Your task to perform on an android device: Open internet settings Image 0: 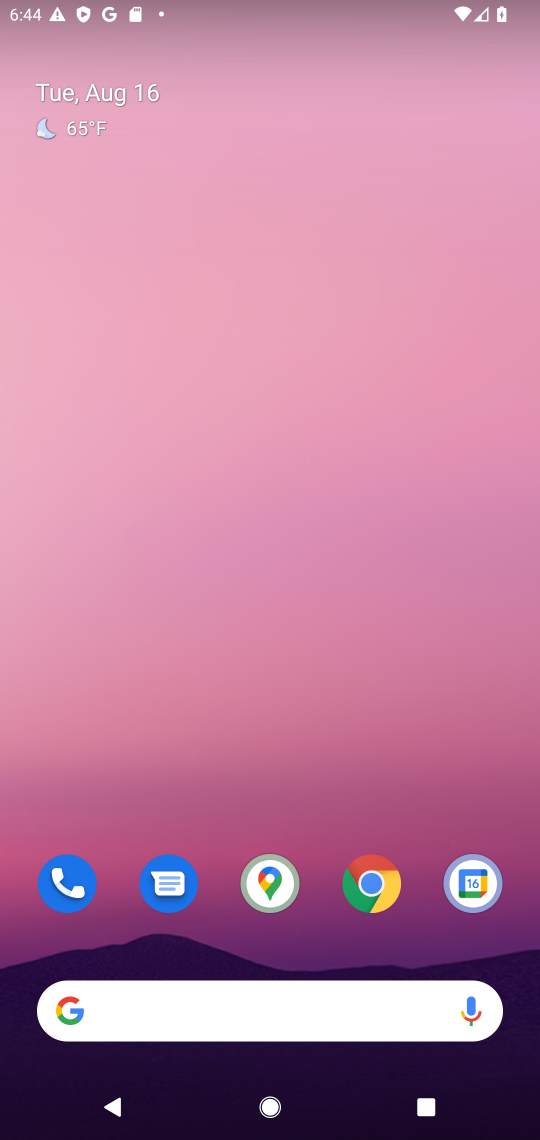
Step 0: drag from (207, 995) to (101, 178)
Your task to perform on an android device: Open internet settings Image 1: 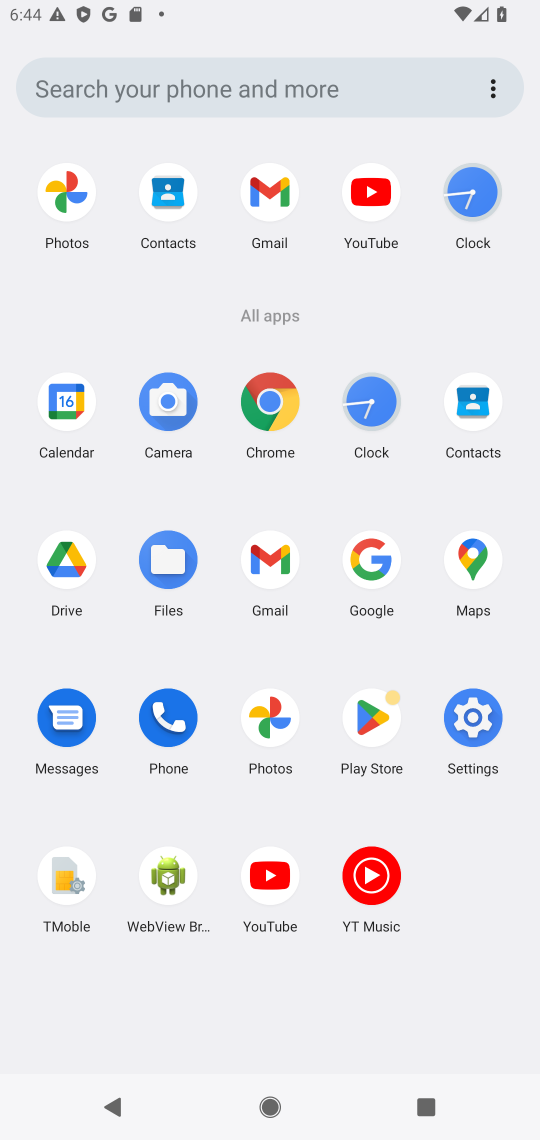
Step 1: click (470, 718)
Your task to perform on an android device: Open internet settings Image 2: 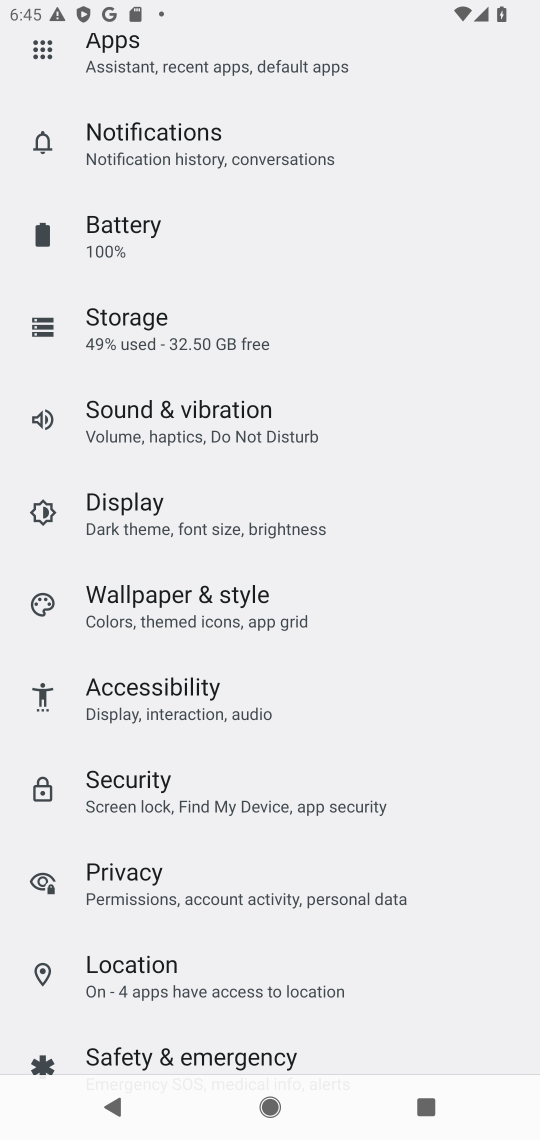
Step 2: drag from (240, 310) to (236, 620)
Your task to perform on an android device: Open internet settings Image 3: 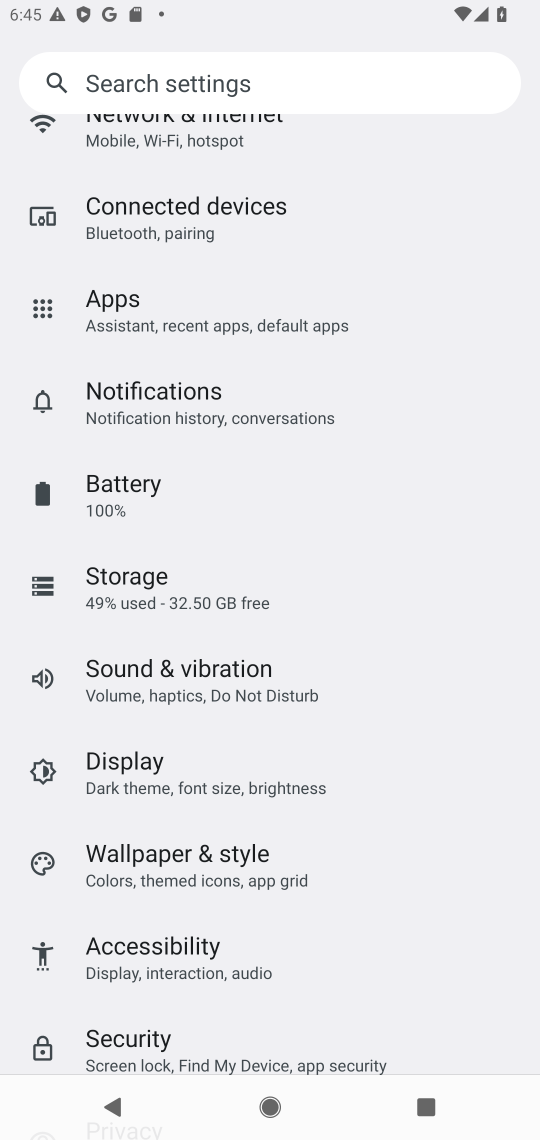
Step 3: drag from (252, 283) to (285, 751)
Your task to perform on an android device: Open internet settings Image 4: 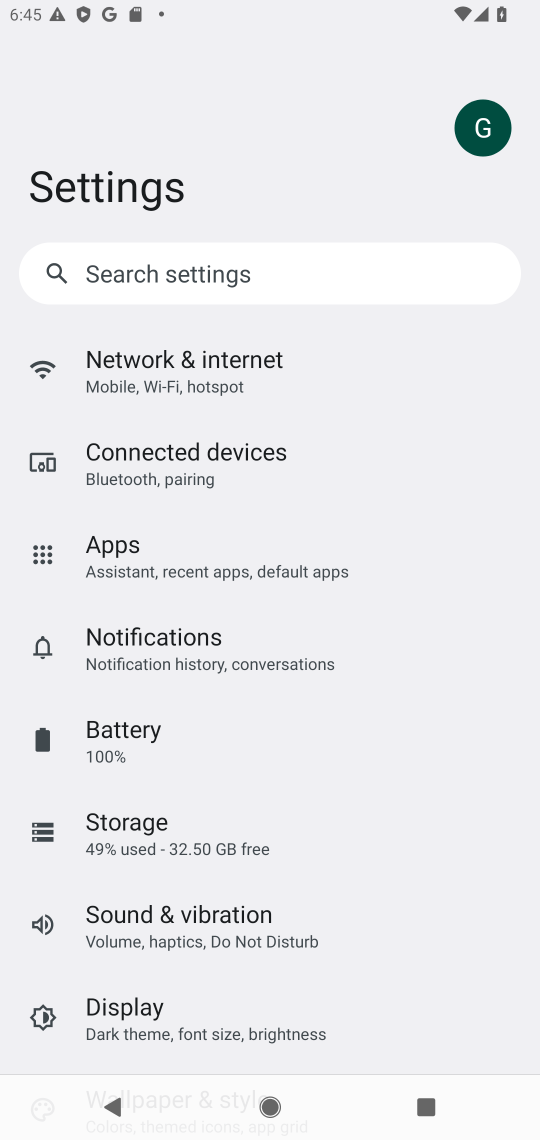
Step 4: click (197, 379)
Your task to perform on an android device: Open internet settings Image 5: 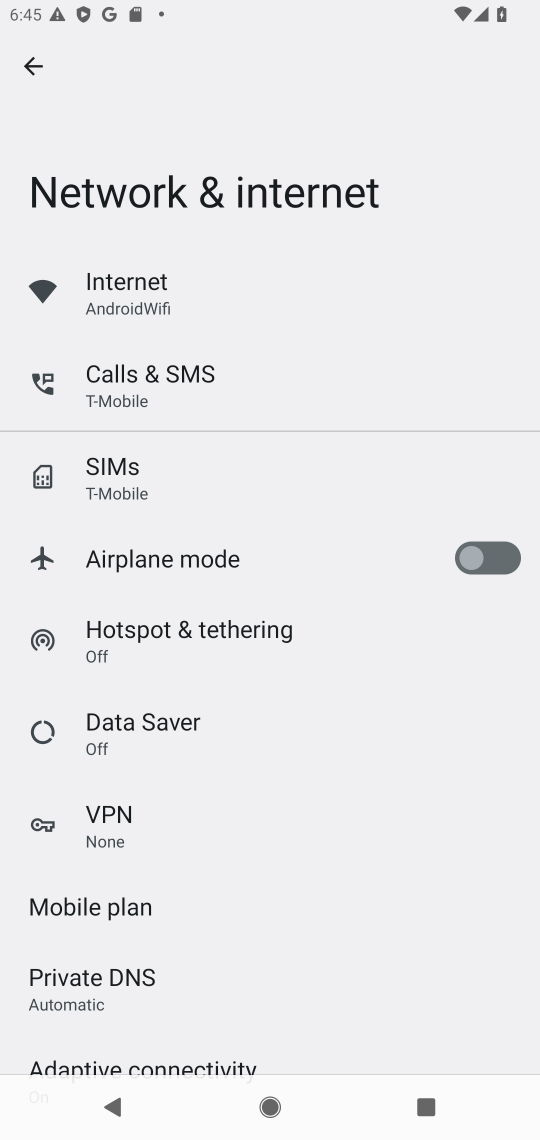
Step 5: click (138, 296)
Your task to perform on an android device: Open internet settings Image 6: 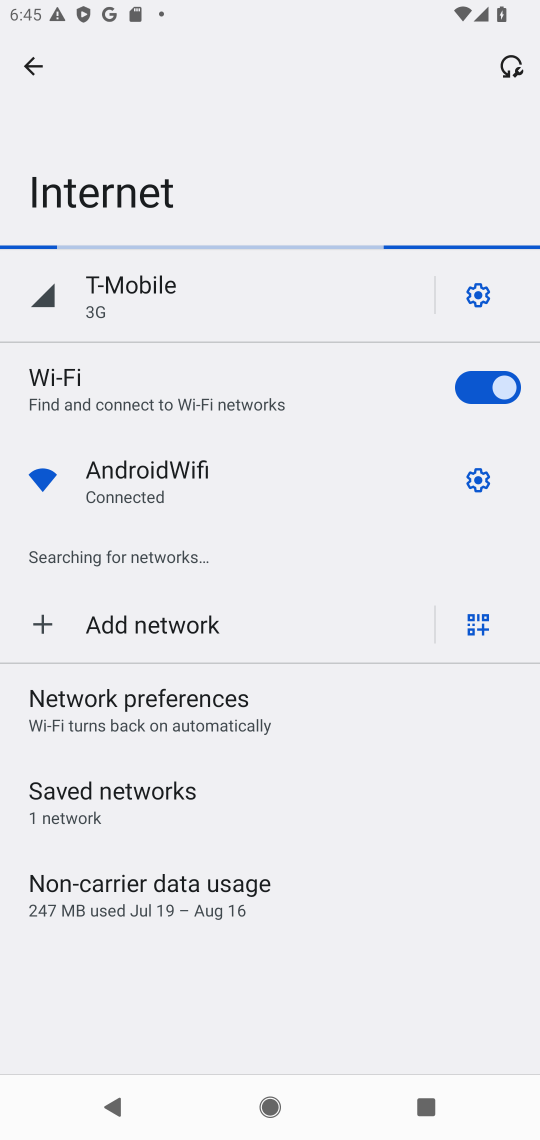
Step 6: task complete